Your task to perform on an android device: open chrome privacy settings Image 0: 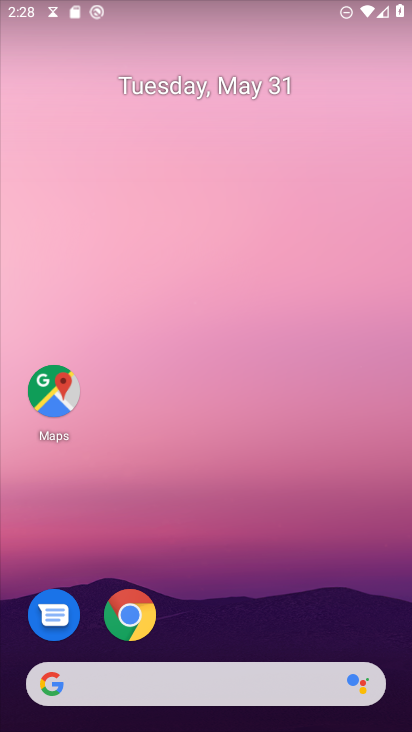
Step 0: drag from (258, 541) to (215, 143)
Your task to perform on an android device: open chrome privacy settings Image 1: 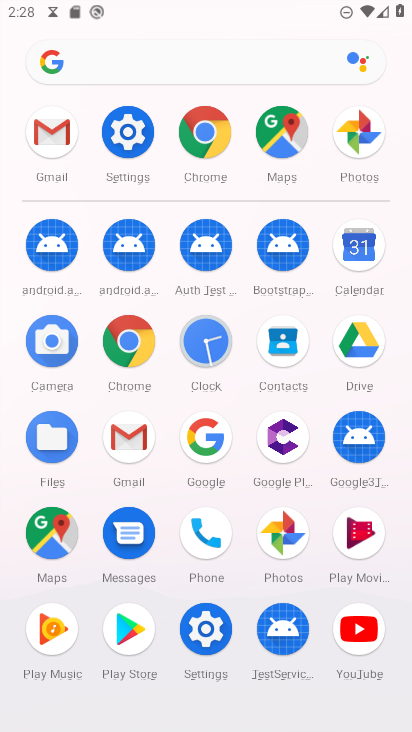
Step 1: click (118, 149)
Your task to perform on an android device: open chrome privacy settings Image 2: 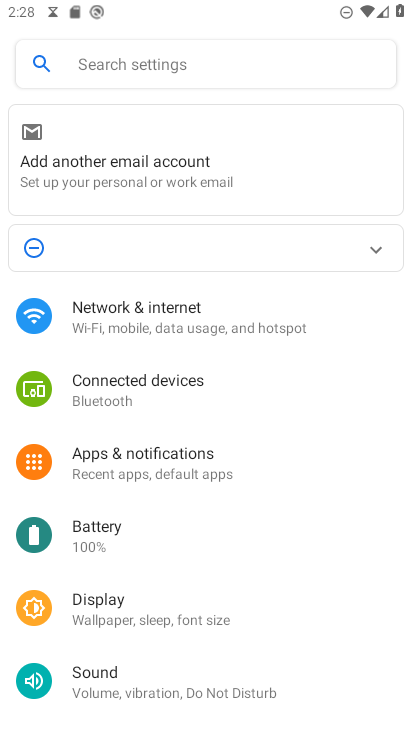
Step 2: press back button
Your task to perform on an android device: open chrome privacy settings Image 3: 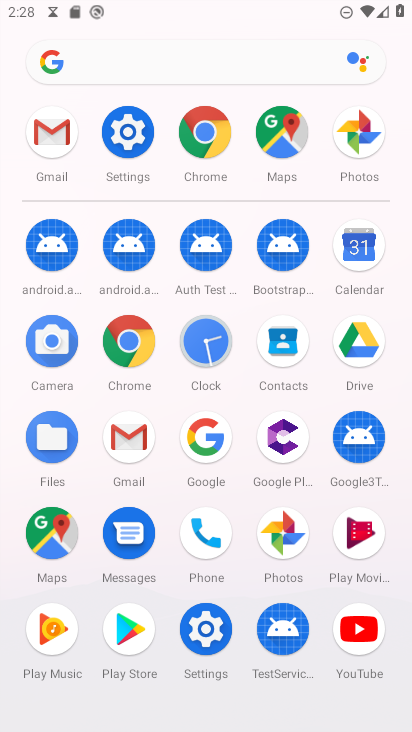
Step 3: click (195, 123)
Your task to perform on an android device: open chrome privacy settings Image 4: 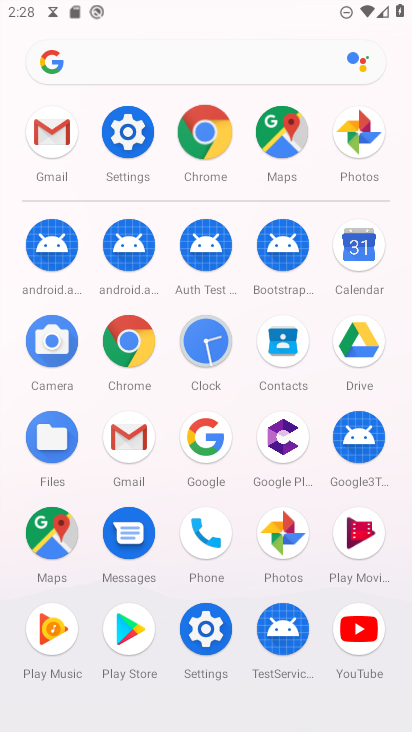
Step 4: click (195, 123)
Your task to perform on an android device: open chrome privacy settings Image 5: 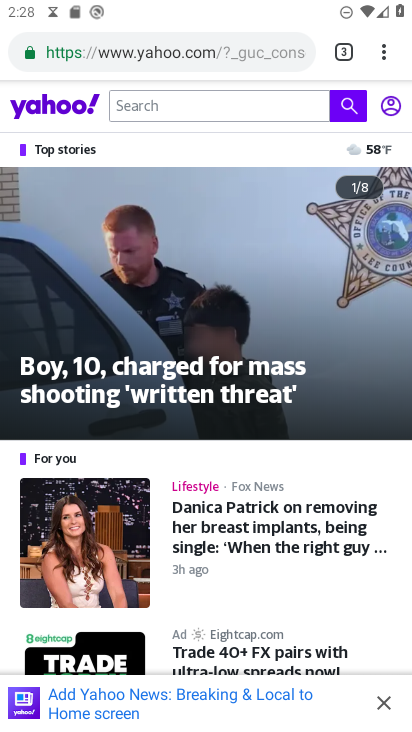
Step 5: drag from (385, 58) to (205, 655)
Your task to perform on an android device: open chrome privacy settings Image 6: 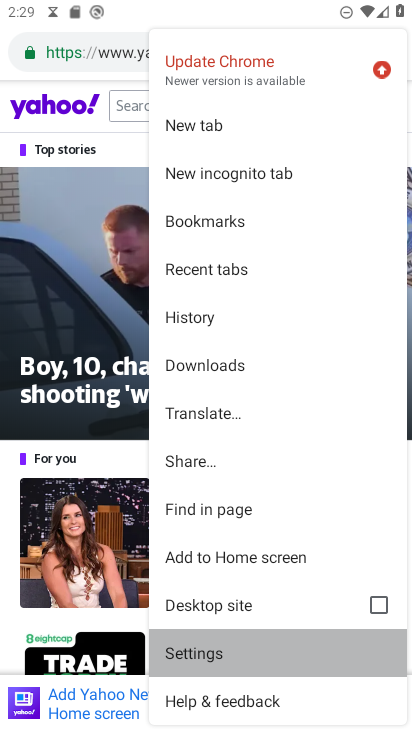
Step 6: click (209, 654)
Your task to perform on an android device: open chrome privacy settings Image 7: 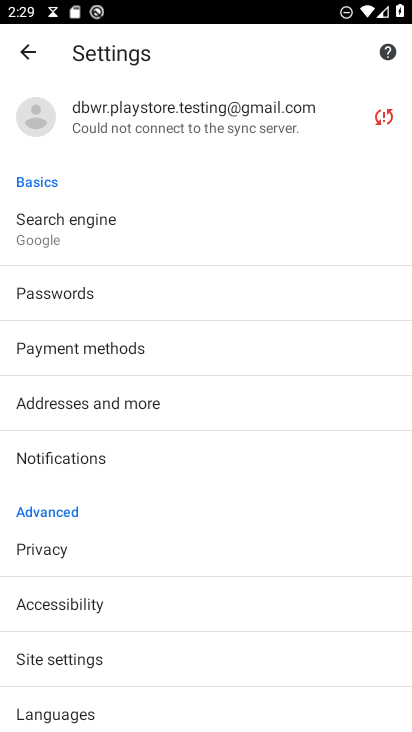
Step 7: click (37, 551)
Your task to perform on an android device: open chrome privacy settings Image 8: 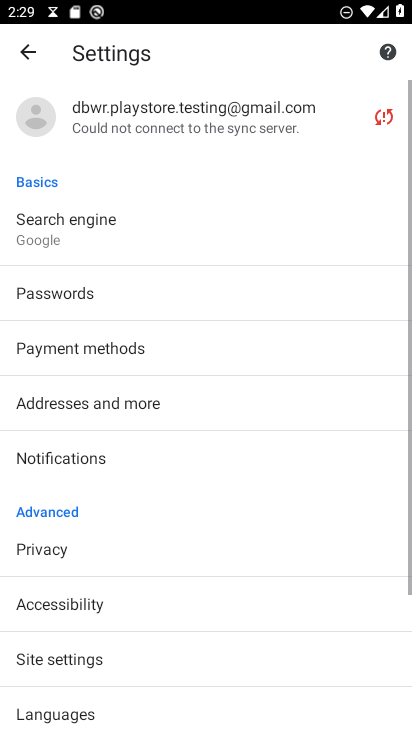
Step 8: click (37, 551)
Your task to perform on an android device: open chrome privacy settings Image 9: 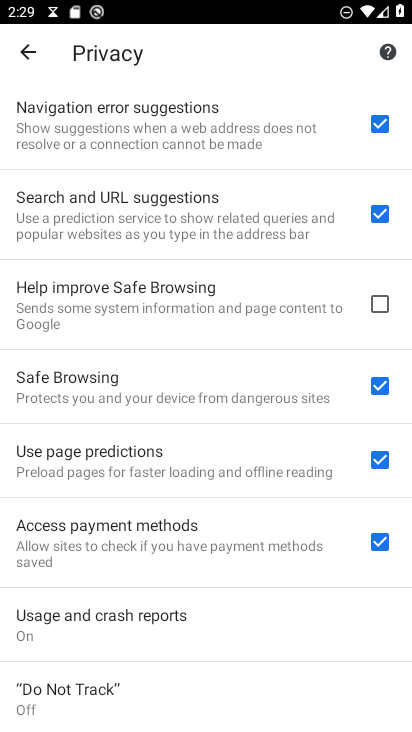
Step 9: task complete